Your task to perform on an android device: Turn off the flashlight Image 0: 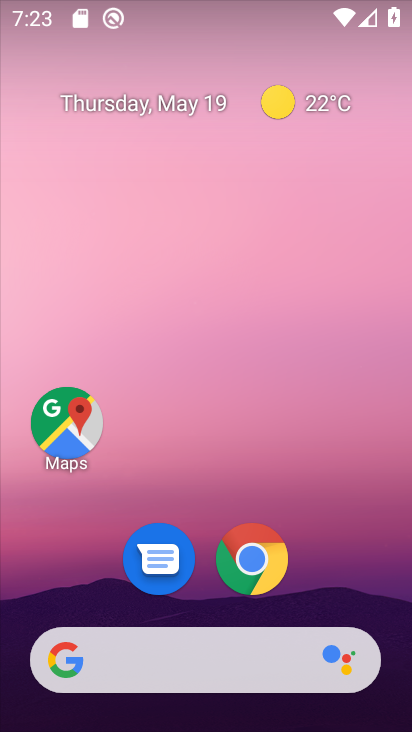
Step 0: drag from (189, 608) to (236, 0)
Your task to perform on an android device: Turn off the flashlight Image 1: 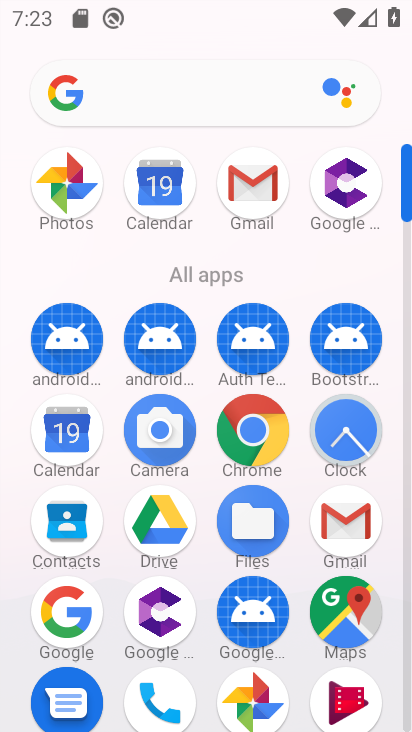
Step 1: drag from (205, 571) to (213, 141)
Your task to perform on an android device: Turn off the flashlight Image 2: 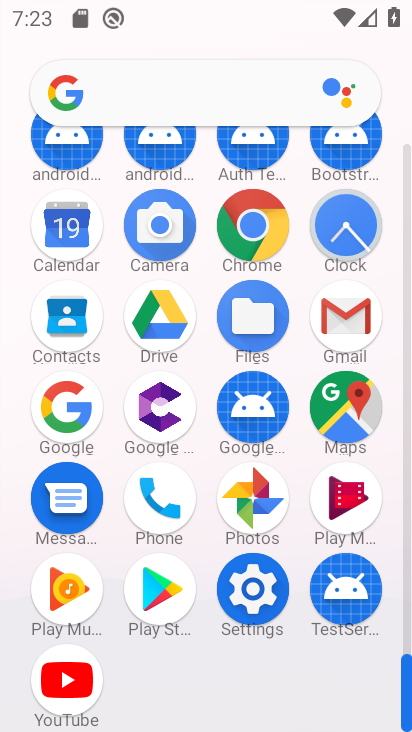
Step 2: click (242, 603)
Your task to perform on an android device: Turn off the flashlight Image 3: 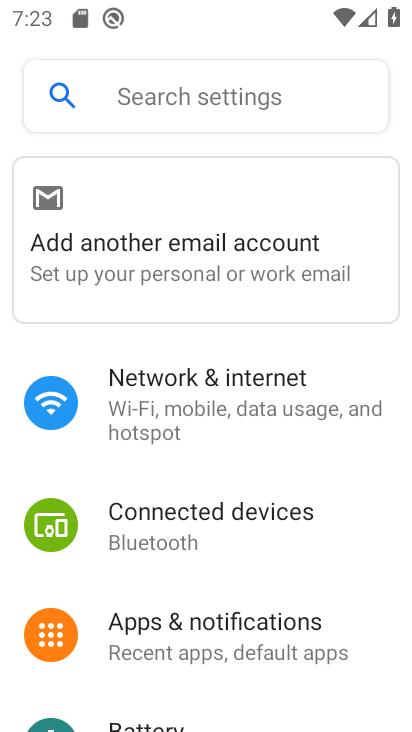
Step 3: task complete